Your task to perform on an android device: choose inbox layout in the gmail app Image 0: 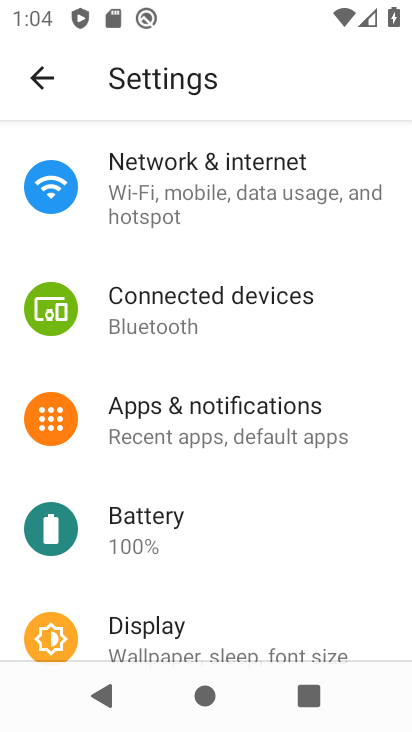
Step 0: drag from (300, 586) to (403, 306)
Your task to perform on an android device: choose inbox layout in the gmail app Image 1: 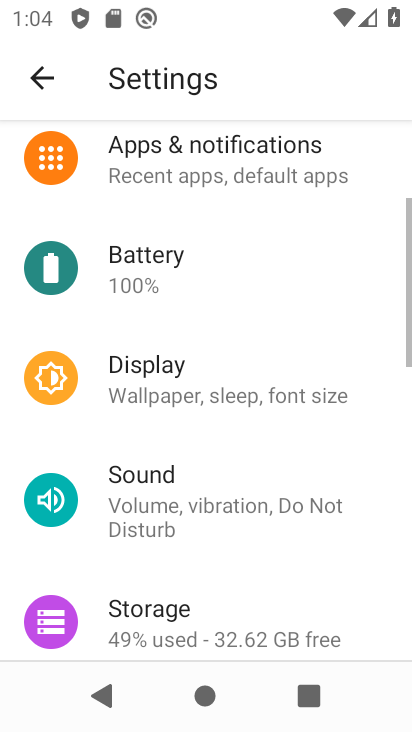
Step 1: press home button
Your task to perform on an android device: choose inbox layout in the gmail app Image 2: 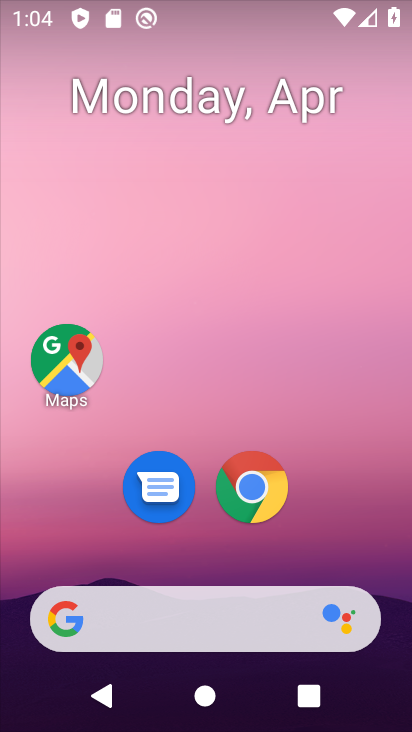
Step 2: drag from (339, 494) to (261, 59)
Your task to perform on an android device: choose inbox layout in the gmail app Image 3: 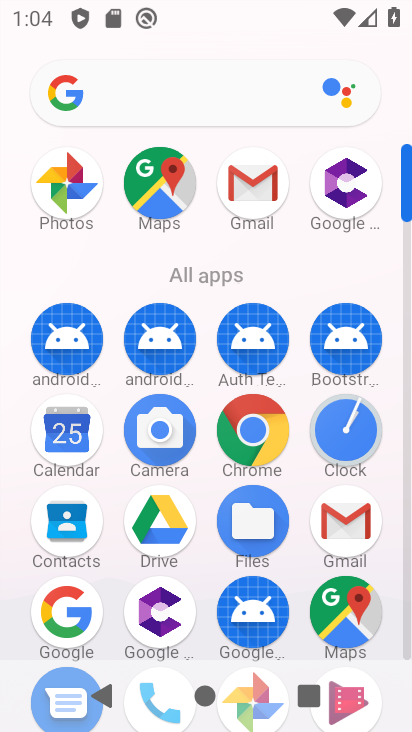
Step 3: click (335, 529)
Your task to perform on an android device: choose inbox layout in the gmail app Image 4: 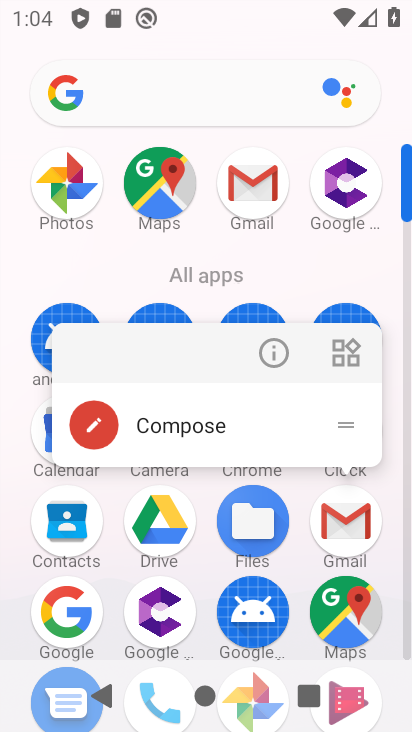
Step 4: click (357, 545)
Your task to perform on an android device: choose inbox layout in the gmail app Image 5: 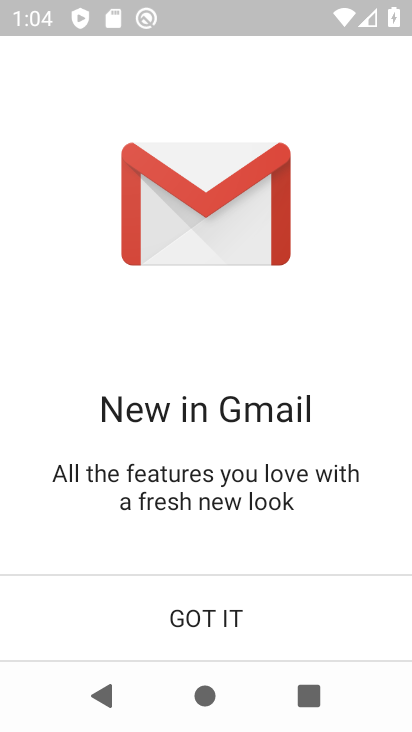
Step 5: click (240, 617)
Your task to perform on an android device: choose inbox layout in the gmail app Image 6: 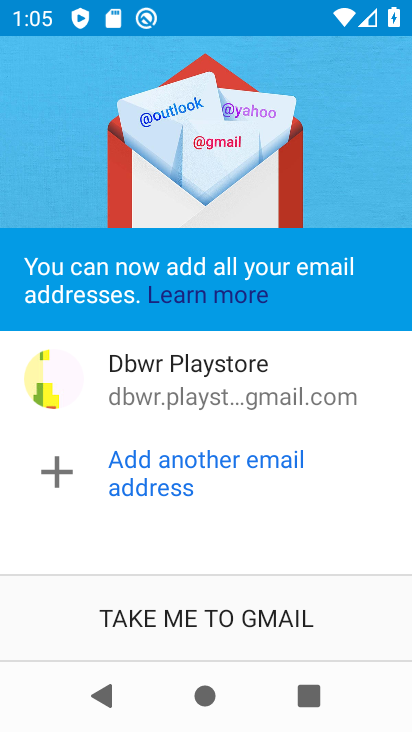
Step 6: click (261, 621)
Your task to perform on an android device: choose inbox layout in the gmail app Image 7: 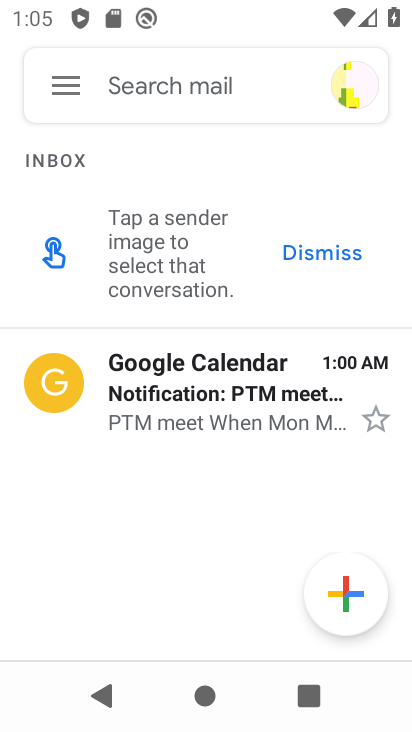
Step 7: click (59, 88)
Your task to perform on an android device: choose inbox layout in the gmail app Image 8: 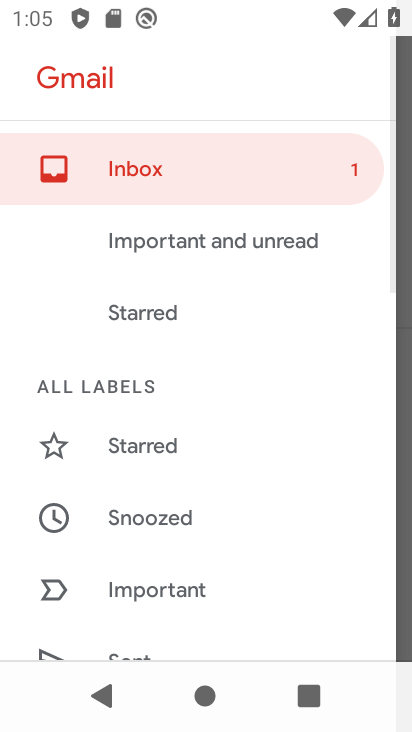
Step 8: drag from (181, 569) to (125, 104)
Your task to perform on an android device: choose inbox layout in the gmail app Image 9: 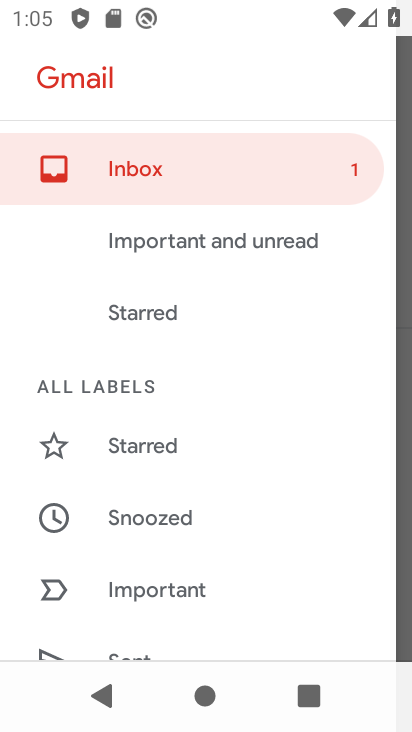
Step 9: drag from (159, 620) to (154, 167)
Your task to perform on an android device: choose inbox layout in the gmail app Image 10: 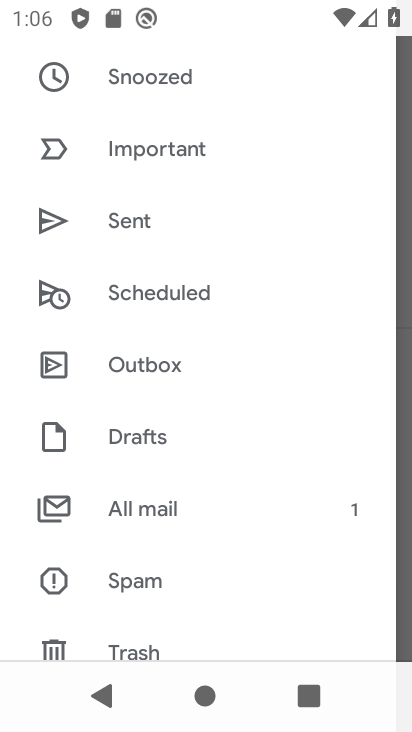
Step 10: drag from (161, 606) to (137, 109)
Your task to perform on an android device: choose inbox layout in the gmail app Image 11: 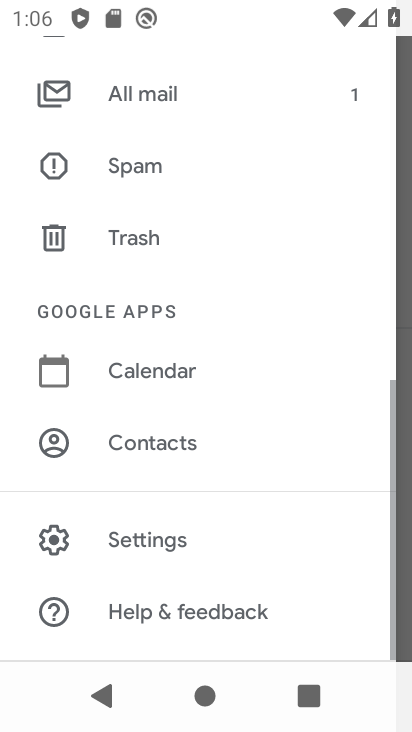
Step 11: click (134, 539)
Your task to perform on an android device: choose inbox layout in the gmail app Image 12: 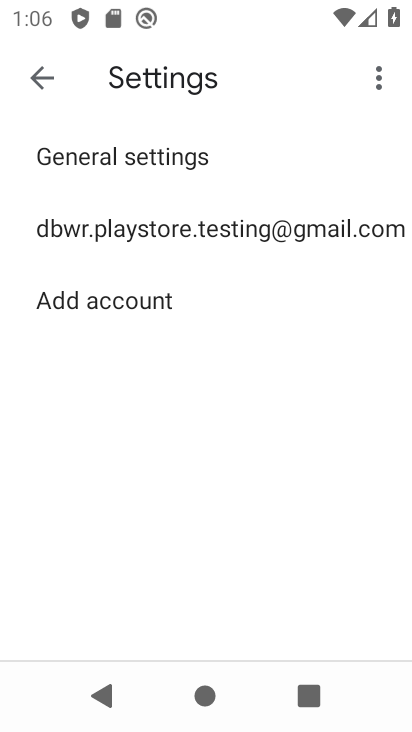
Step 12: click (156, 234)
Your task to perform on an android device: choose inbox layout in the gmail app Image 13: 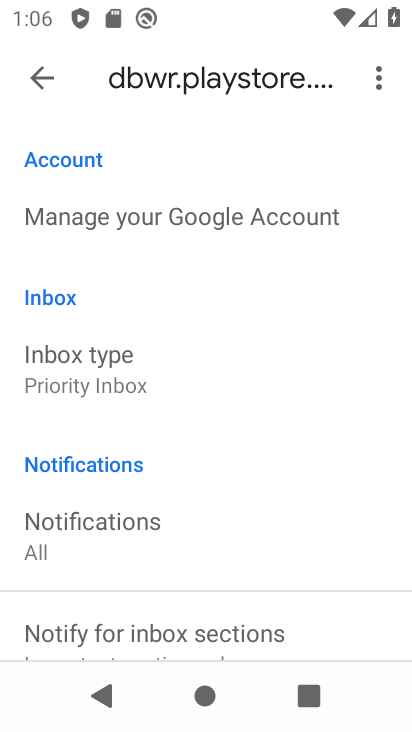
Step 13: drag from (209, 492) to (185, 266)
Your task to perform on an android device: choose inbox layout in the gmail app Image 14: 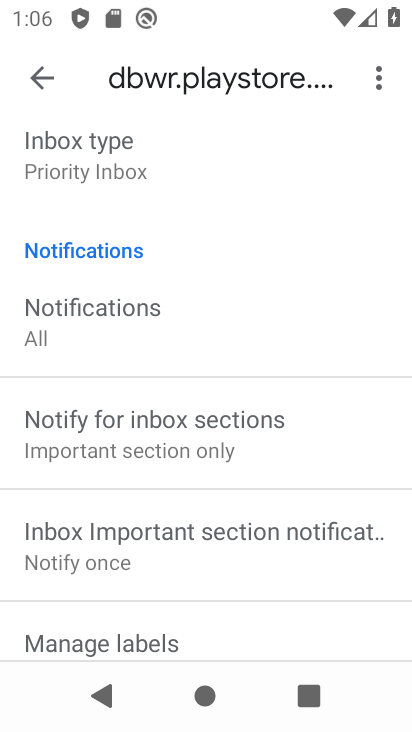
Step 14: drag from (232, 579) to (218, 329)
Your task to perform on an android device: choose inbox layout in the gmail app Image 15: 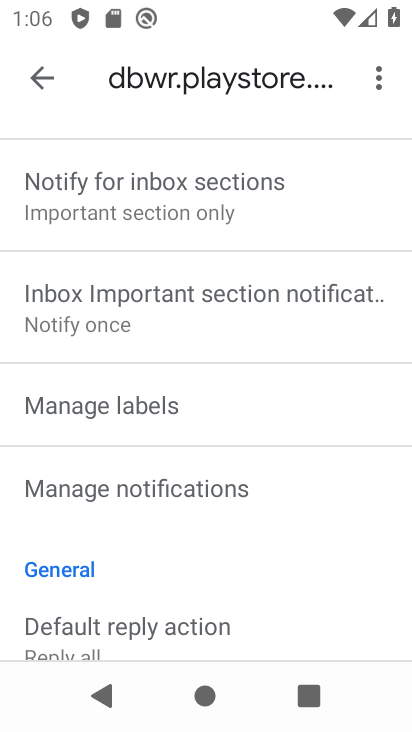
Step 15: drag from (233, 548) to (193, 263)
Your task to perform on an android device: choose inbox layout in the gmail app Image 16: 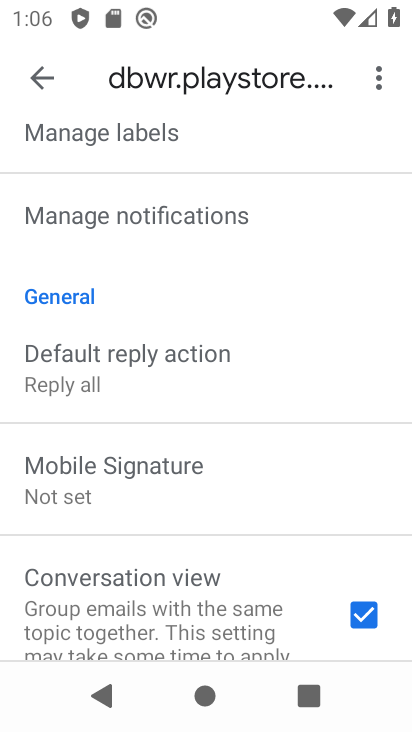
Step 16: drag from (224, 547) to (170, 229)
Your task to perform on an android device: choose inbox layout in the gmail app Image 17: 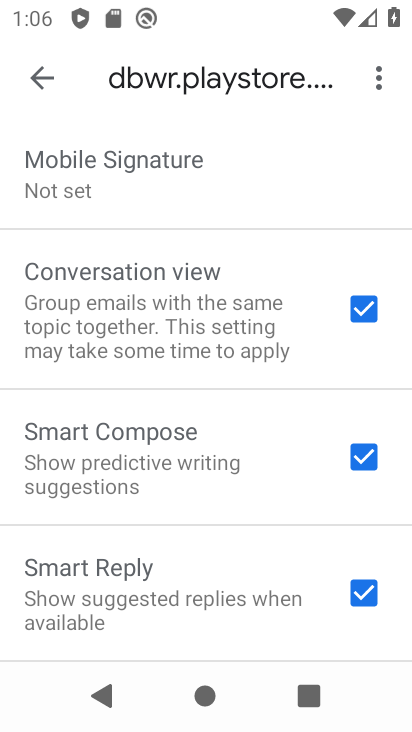
Step 17: drag from (224, 589) to (89, 532)
Your task to perform on an android device: choose inbox layout in the gmail app Image 18: 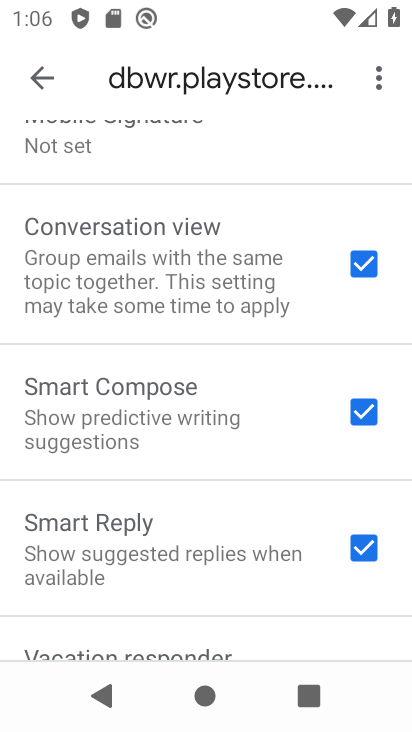
Step 18: drag from (175, 168) to (185, 504)
Your task to perform on an android device: choose inbox layout in the gmail app Image 19: 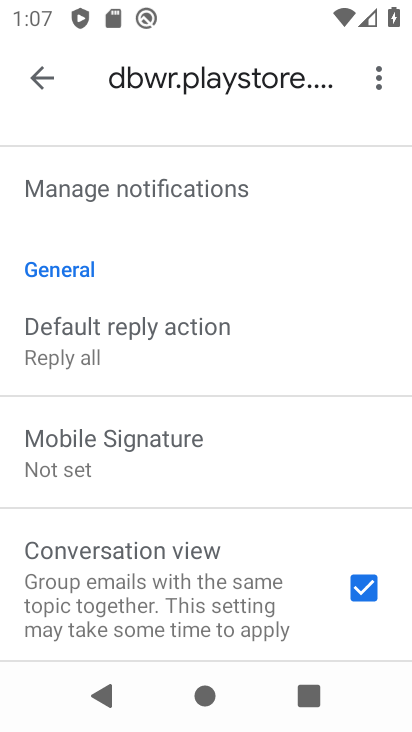
Step 19: drag from (253, 582) to (213, 322)
Your task to perform on an android device: choose inbox layout in the gmail app Image 20: 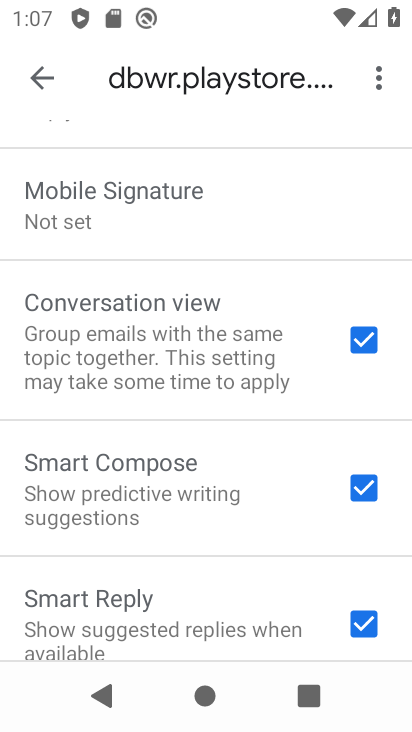
Step 20: drag from (213, 615) to (195, 728)
Your task to perform on an android device: choose inbox layout in the gmail app Image 21: 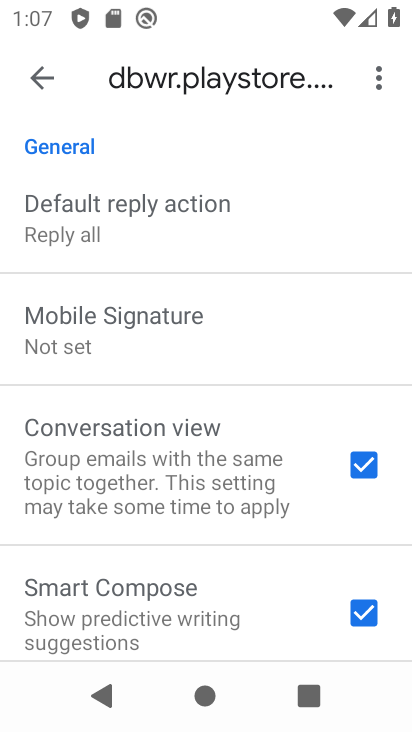
Step 21: drag from (159, 234) to (123, 625)
Your task to perform on an android device: choose inbox layout in the gmail app Image 22: 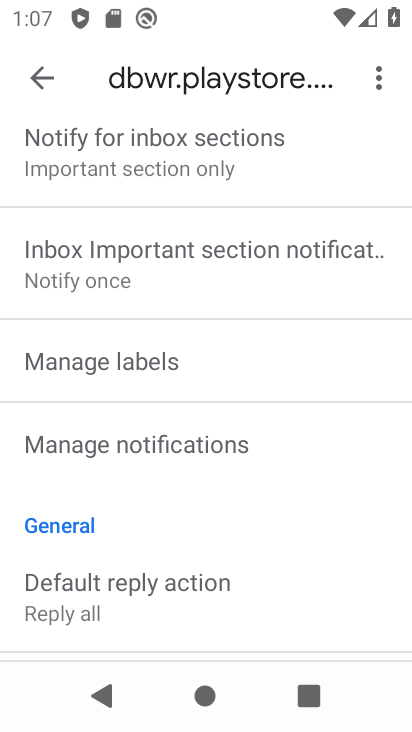
Step 22: drag from (177, 228) to (128, 469)
Your task to perform on an android device: choose inbox layout in the gmail app Image 23: 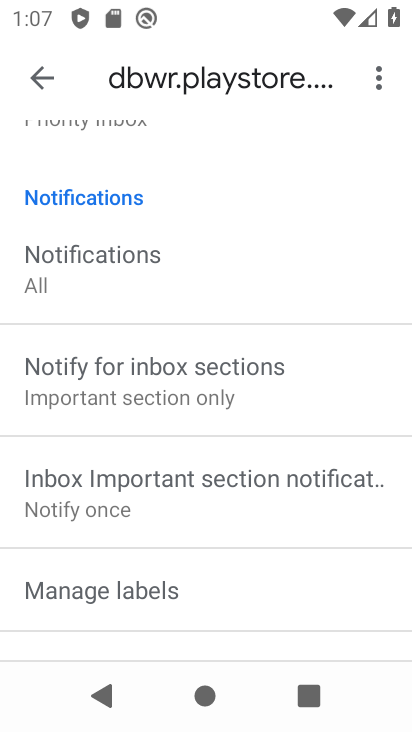
Step 23: drag from (141, 231) to (161, 610)
Your task to perform on an android device: choose inbox layout in the gmail app Image 24: 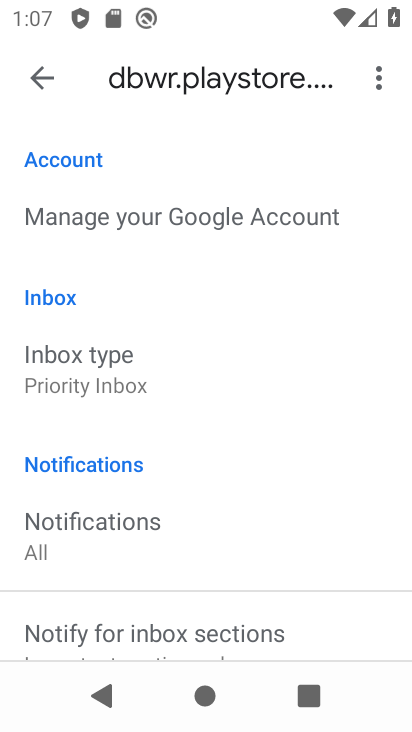
Step 24: click (125, 379)
Your task to perform on an android device: choose inbox layout in the gmail app Image 25: 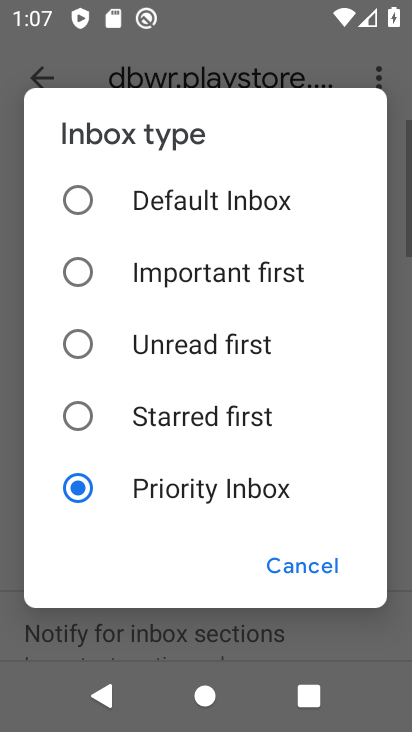
Step 25: click (157, 334)
Your task to perform on an android device: choose inbox layout in the gmail app Image 26: 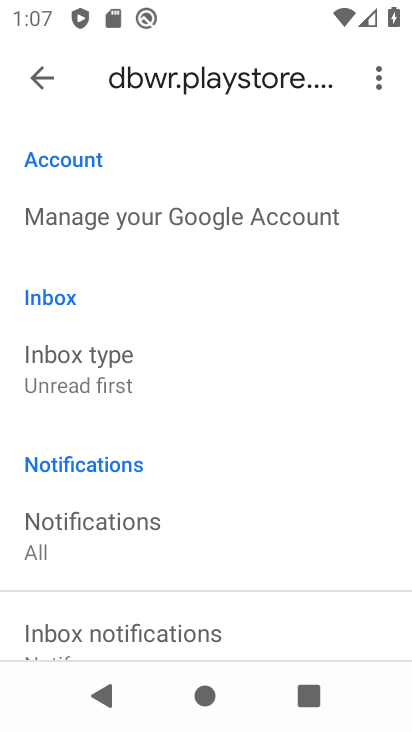
Step 26: task complete